Your task to perform on an android device: Go to Reddit.com Image 0: 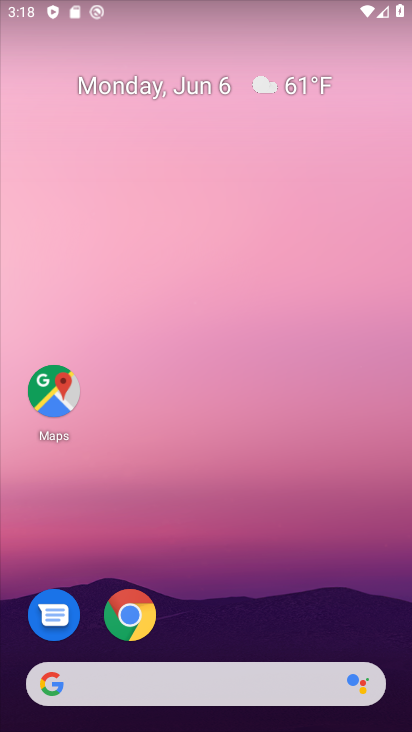
Step 0: click (130, 612)
Your task to perform on an android device: Go to Reddit.com Image 1: 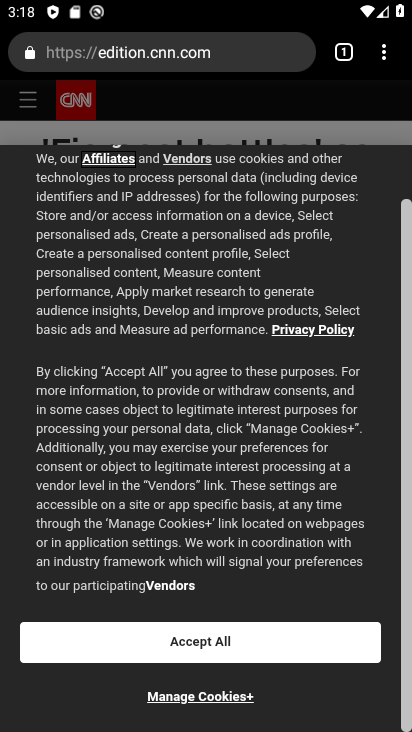
Step 1: click (231, 47)
Your task to perform on an android device: Go to Reddit.com Image 2: 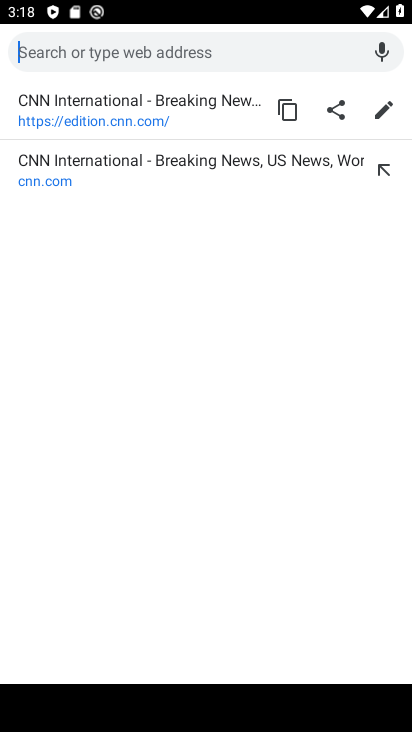
Step 2: type "reddit.com"
Your task to perform on an android device: Go to Reddit.com Image 3: 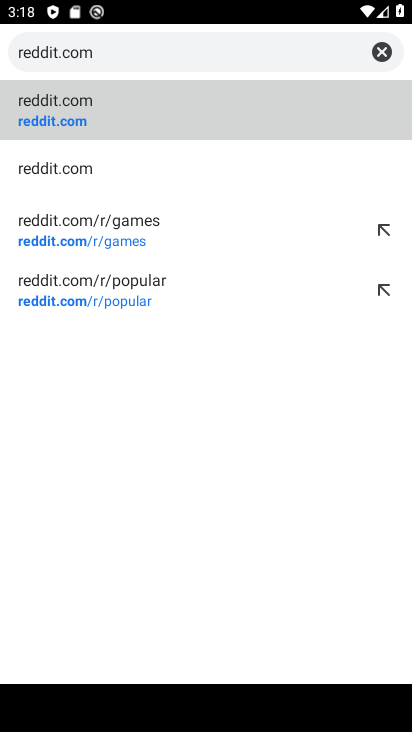
Step 3: click (49, 110)
Your task to perform on an android device: Go to Reddit.com Image 4: 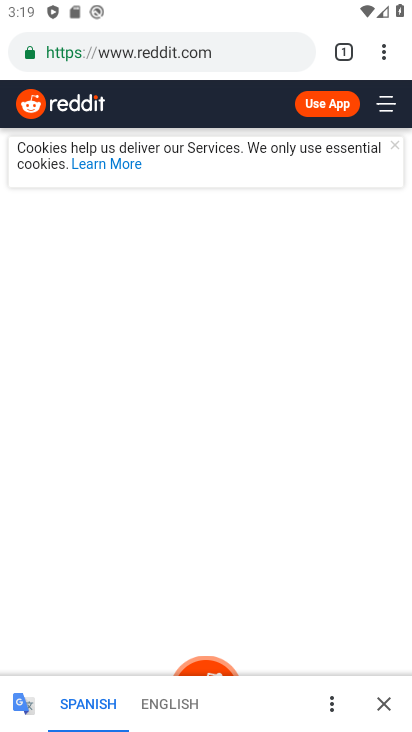
Step 4: task complete